Your task to perform on an android device: turn off javascript in the chrome app Image 0: 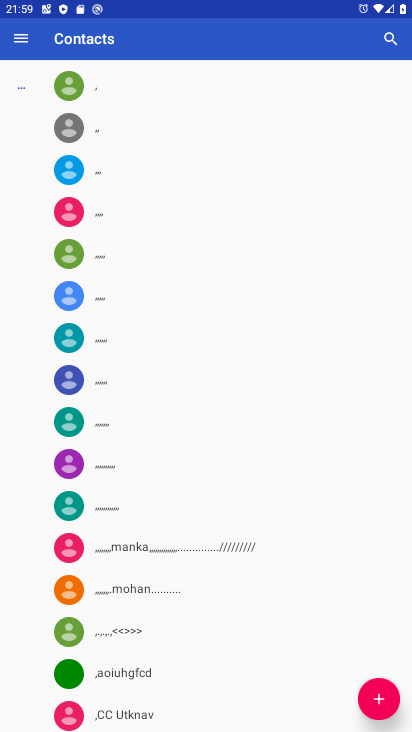
Step 0: press home button
Your task to perform on an android device: turn off javascript in the chrome app Image 1: 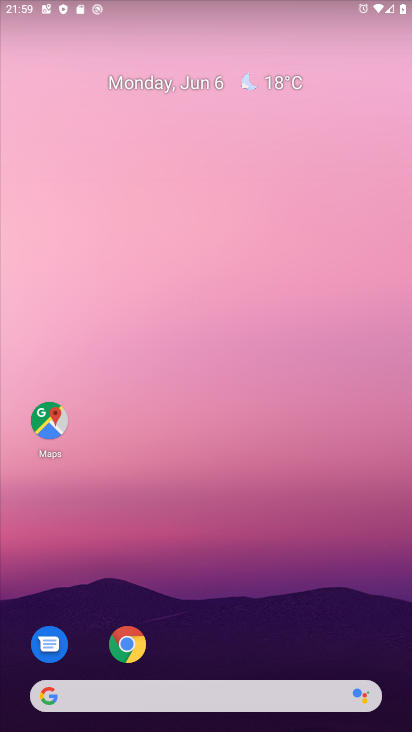
Step 1: drag from (389, 636) to (343, 184)
Your task to perform on an android device: turn off javascript in the chrome app Image 2: 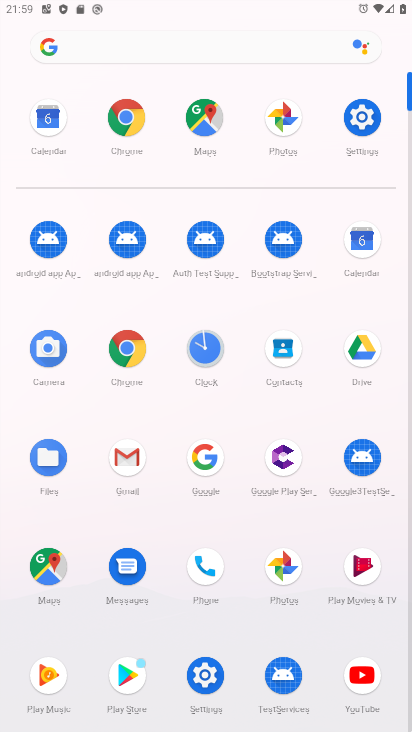
Step 2: click (120, 353)
Your task to perform on an android device: turn off javascript in the chrome app Image 3: 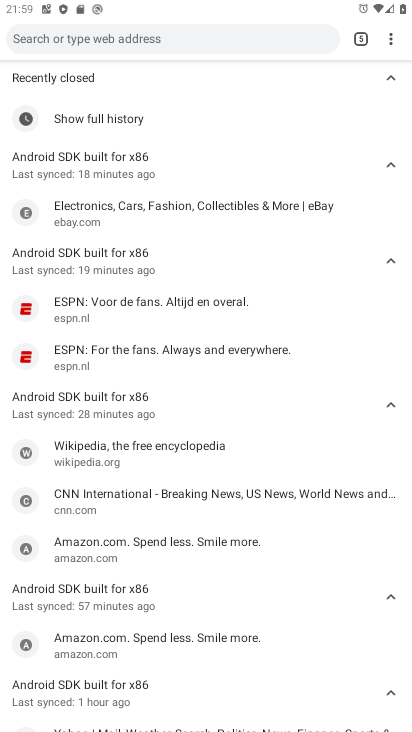
Step 3: drag from (388, 39) to (270, 337)
Your task to perform on an android device: turn off javascript in the chrome app Image 4: 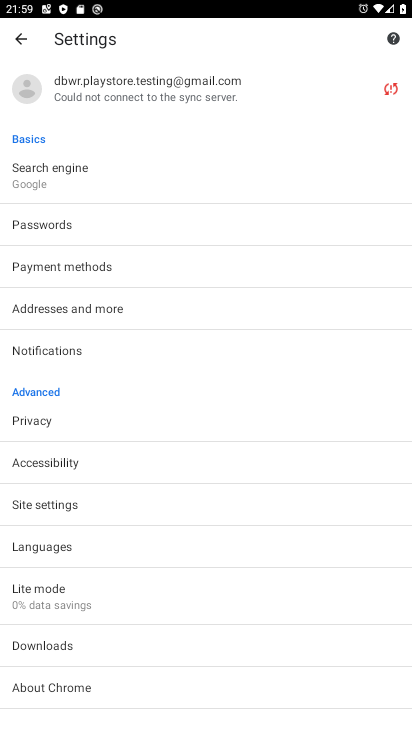
Step 4: drag from (263, 703) to (282, 310)
Your task to perform on an android device: turn off javascript in the chrome app Image 5: 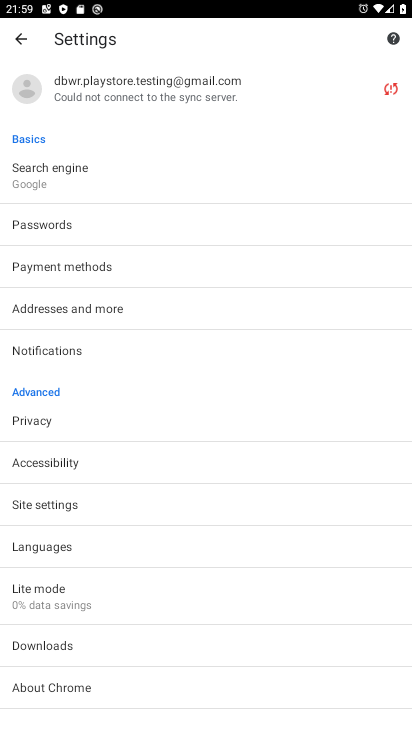
Step 5: click (102, 510)
Your task to perform on an android device: turn off javascript in the chrome app Image 6: 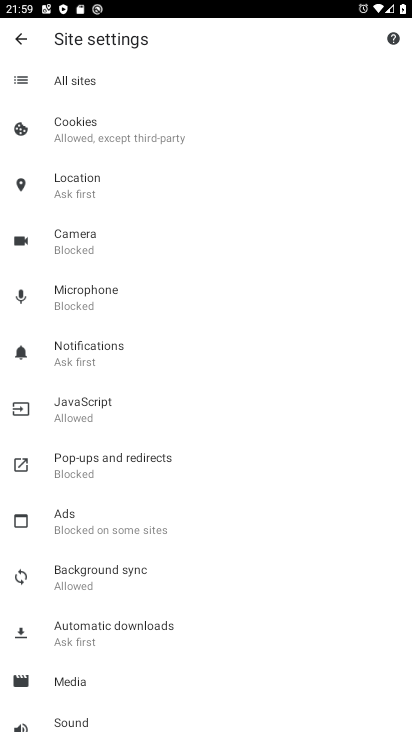
Step 6: click (136, 412)
Your task to perform on an android device: turn off javascript in the chrome app Image 7: 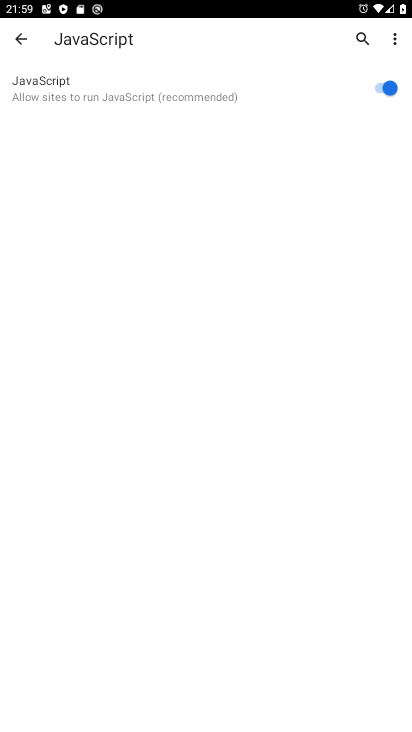
Step 7: click (385, 87)
Your task to perform on an android device: turn off javascript in the chrome app Image 8: 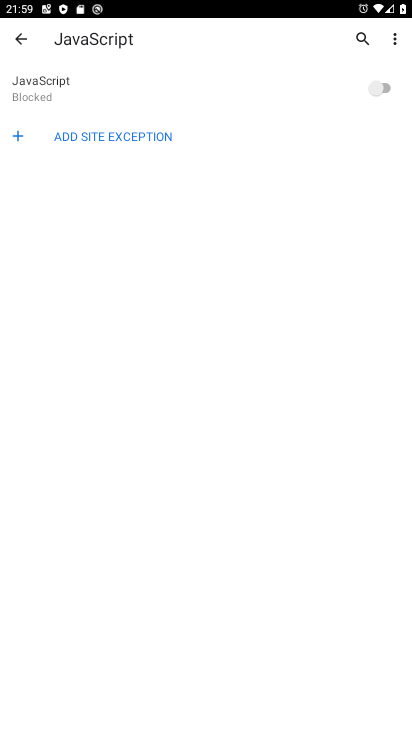
Step 8: task complete